Your task to perform on an android device: change notifications settings Image 0: 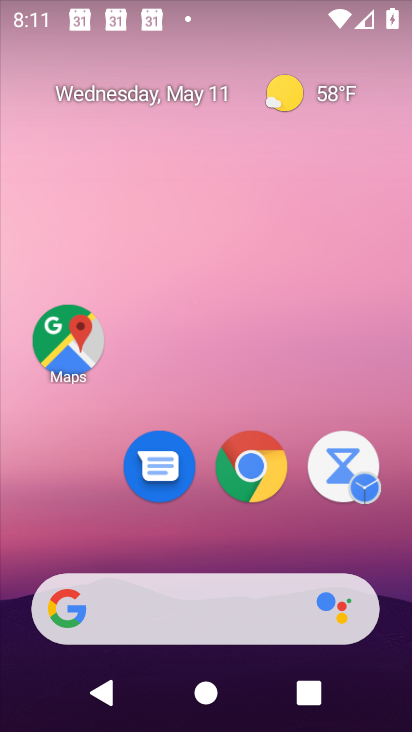
Step 0: drag from (202, 408) to (181, 21)
Your task to perform on an android device: change notifications settings Image 1: 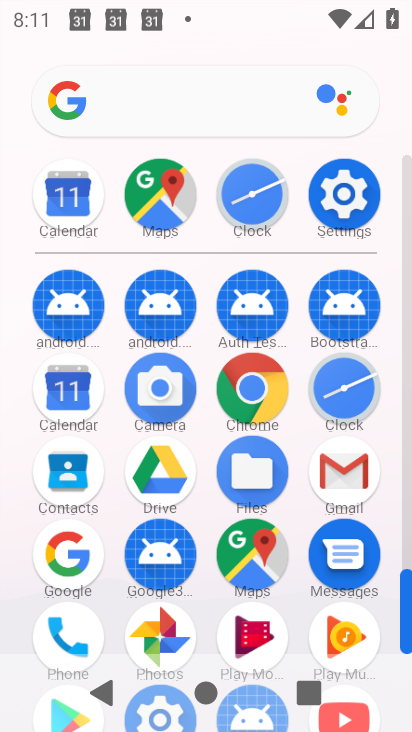
Step 1: click (336, 187)
Your task to perform on an android device: change notifications settings Image 2: 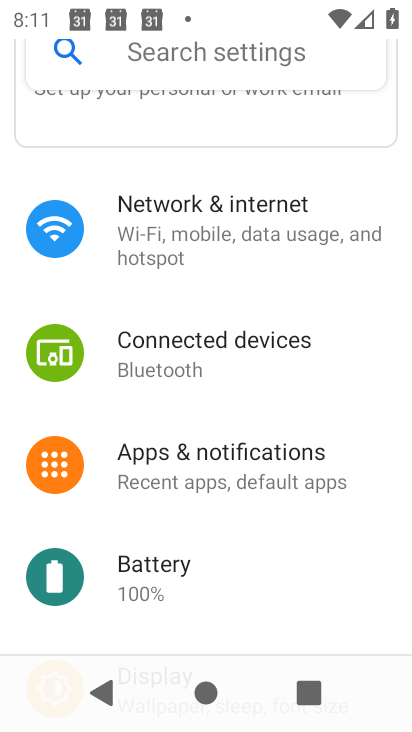
Step 2: click (145, 490)
Your task to perform on an android device: change notifications settings Image 3: 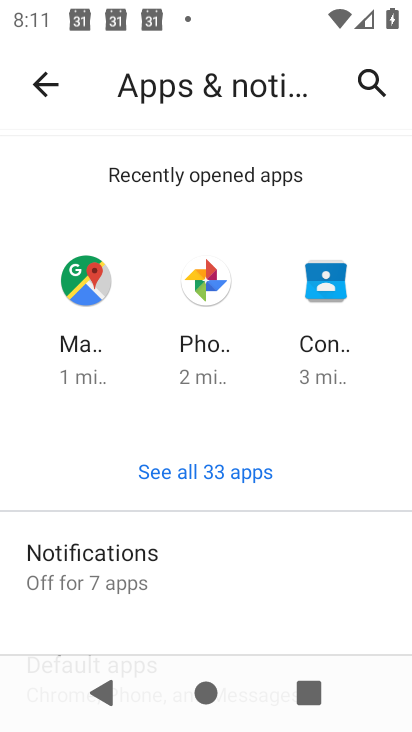
Step 3: click (189, 552)
Your task to perform on an android device: change notifications settings Image 4: 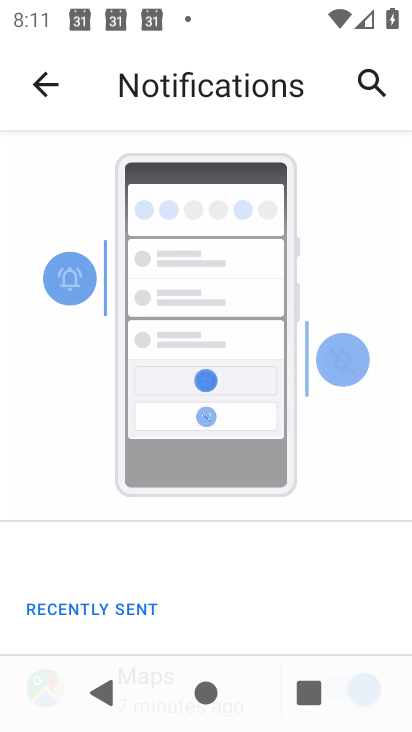
Step 4: drag from (187, 548) to (200, 235)
Your task to perform on an android device: change notifications settings Image 5: 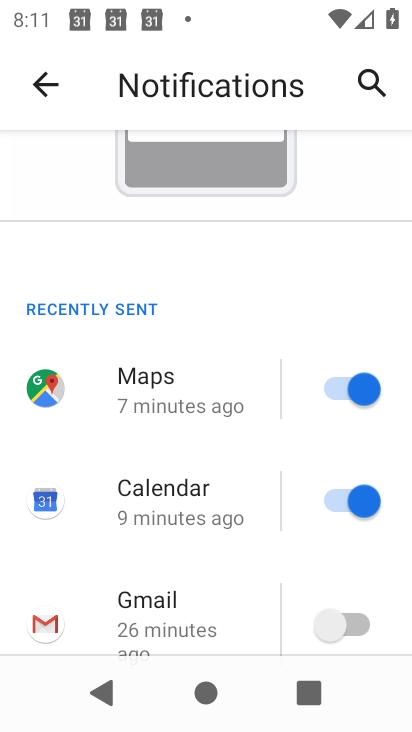
Step 5: drag from (175, 495) to (178, 223)
Your task to perform on an android device: change notifications settings Image 6: 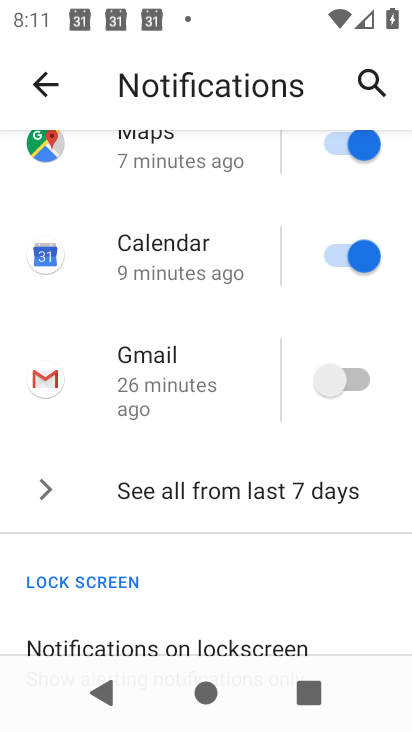
Step 6: click (178, 490)
Your task to perform on an android device: change notifications settings Image 7: 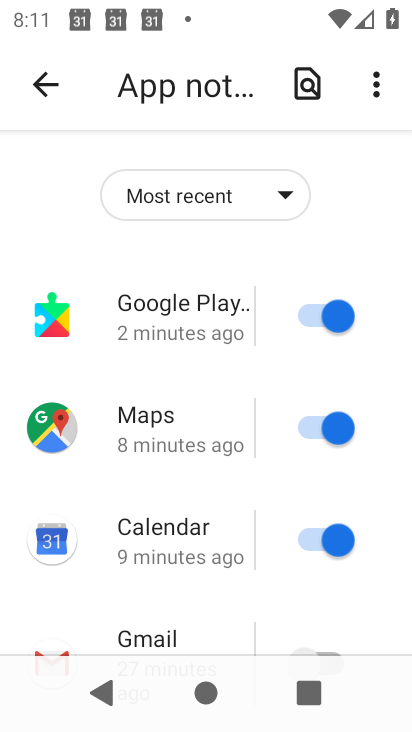
Step 7: drag from (166, 584) to (149, 254)
Your task to perform on an android device: change notifications settings Image 8: 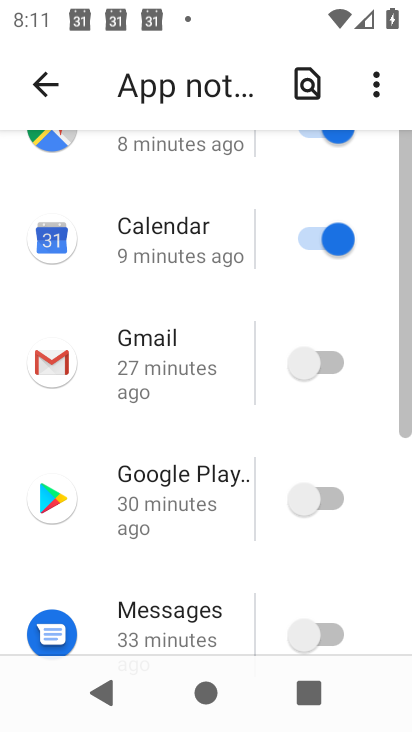
Step 8: drag from (200, 549) to (264, 218)
Your task to perform on an android device: change notifications settings Image 9: 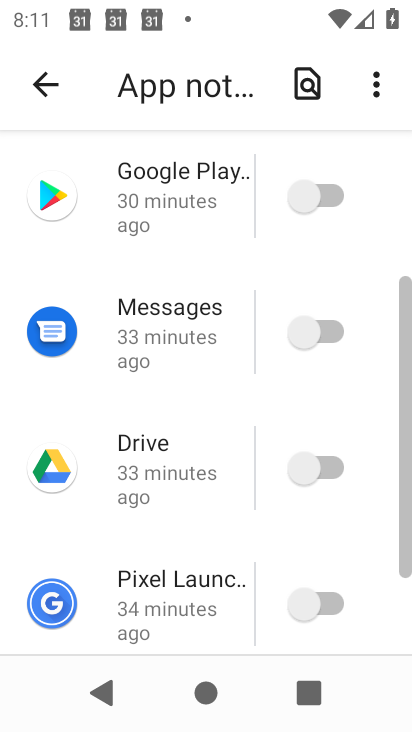
Step 9: click (289, 605)
Your task to perform on an android device: change notifications settings Image 10: 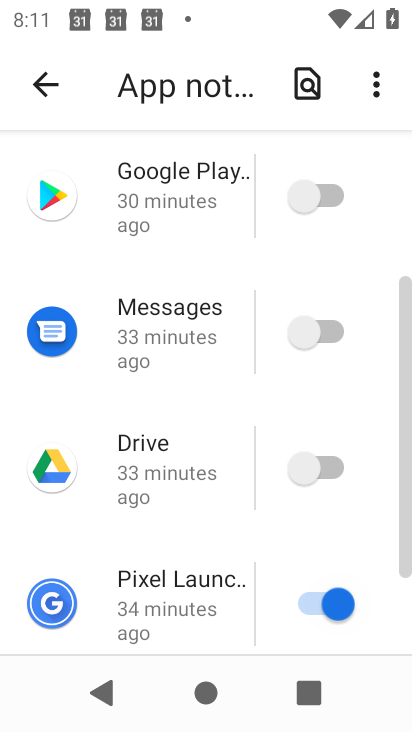
Step 10: click (323, 462)
Your task to perform on an android device: change notifications settings Image 11: 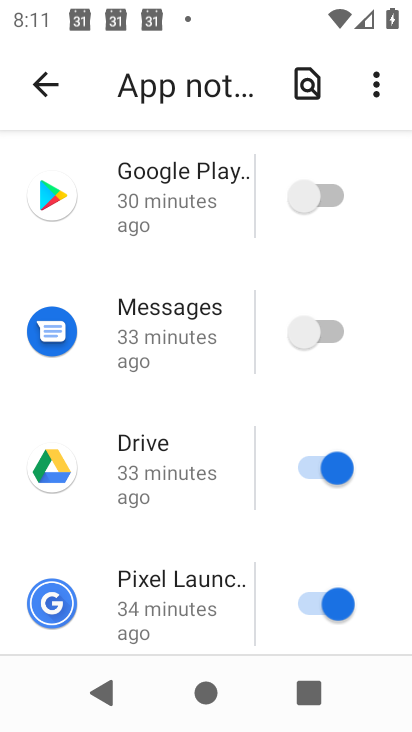
Step 11: click (309, 348)
Your task to perform on an android device: change notifications settings Image 12: 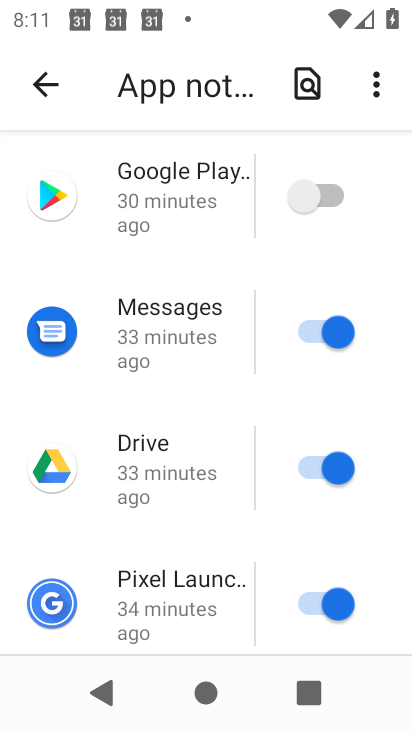
Step 12: click (324, 204)
Your task to perform on an android device: change notifications settings Image 13: 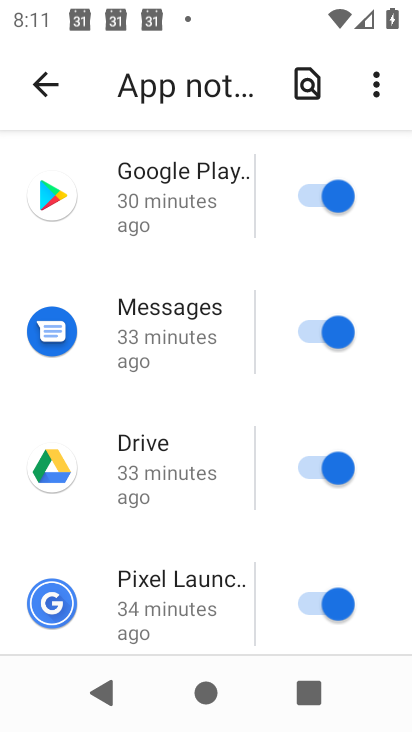
Step 13: drag from (188, 189) to (227, 609)
Your task to perform on an android device: change notifications settings Image 14: 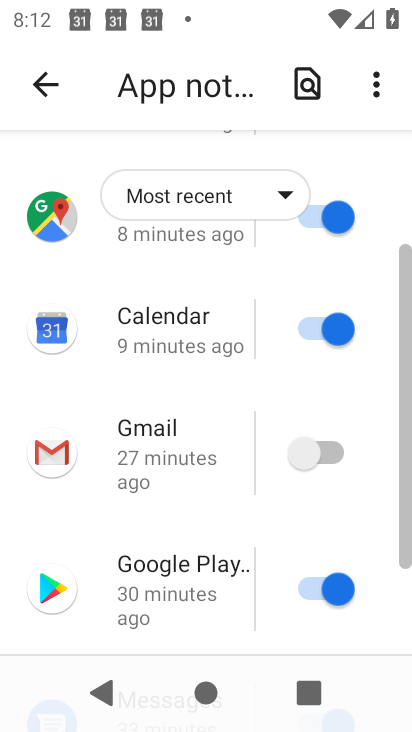
Step 14: click (324, 454)
Your task to perform on an android device: change notifications settings Image 15: 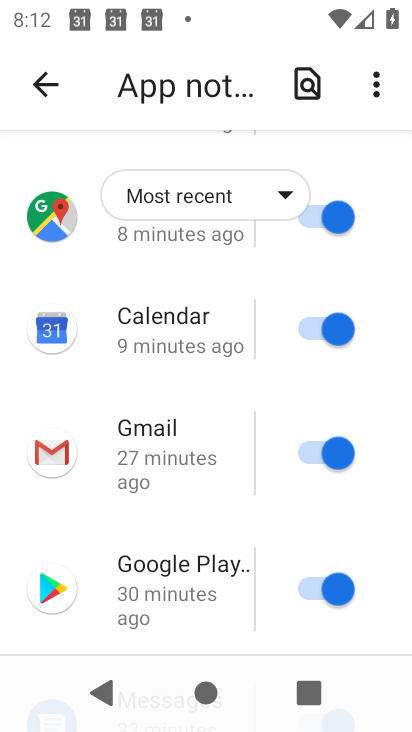
Step 15: click (346, 317)
Your task to perform on an android device: change notifications settings Image 16: 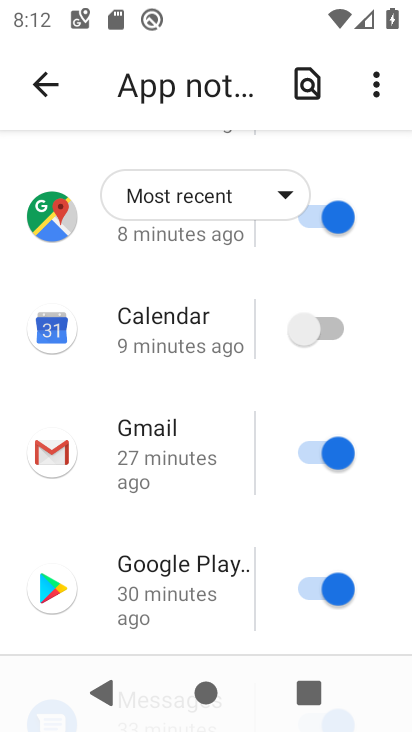
Step 16: click (328, 227)
Your task to perform on an android device: change notifications settings Image 17: 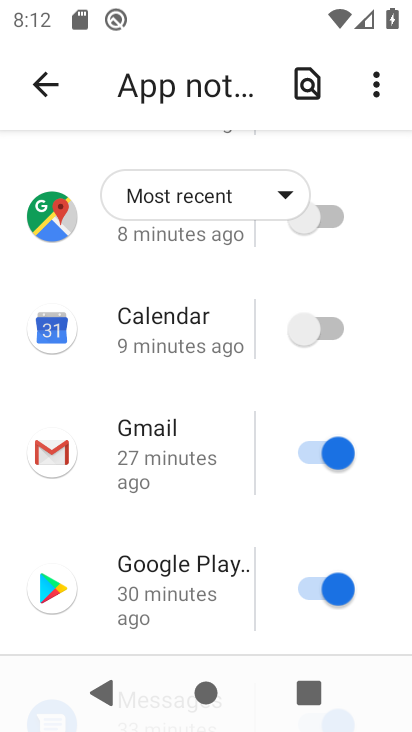
Step 17: drag from (274, 268) to (281, 583)
Your task to perform on an android device: change notifications settings Image 18: 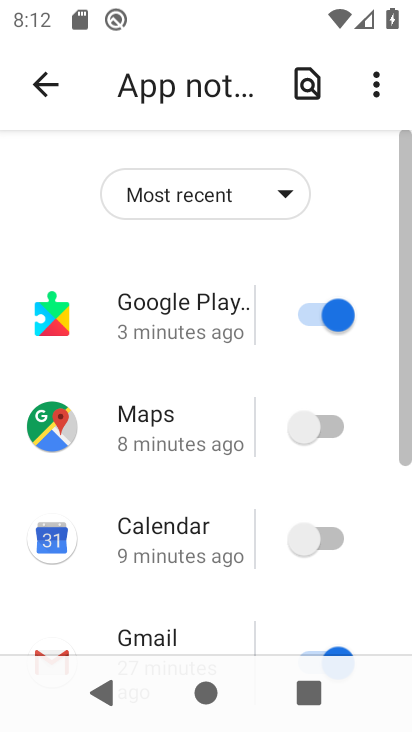
Step 18: click (306, 306)
Your task to perform on an android device: change notifications settings Image 19: 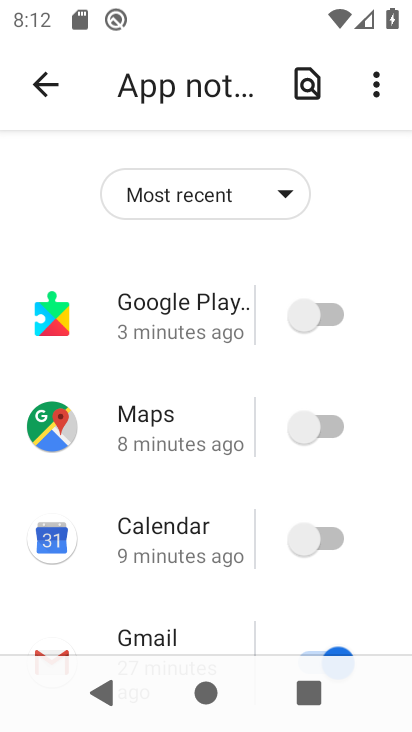
Step 19: click (32, 84)
Your task to perform on an android device: change notifications settings Image 20: 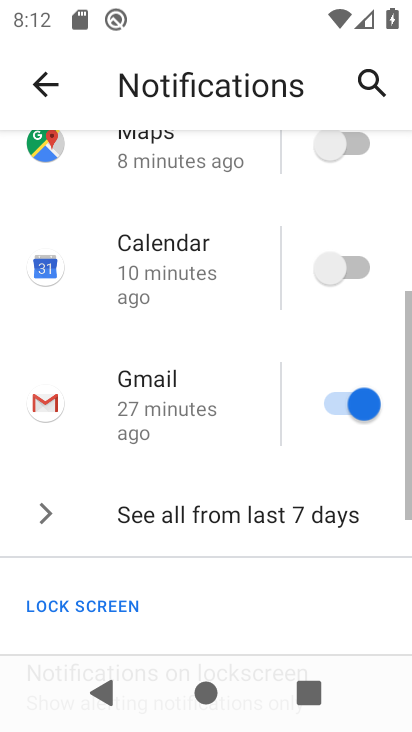
Step 20: drag from (185, 585) to (240, 101)
Your task to perform on an android device: change notifications settings Image 21: 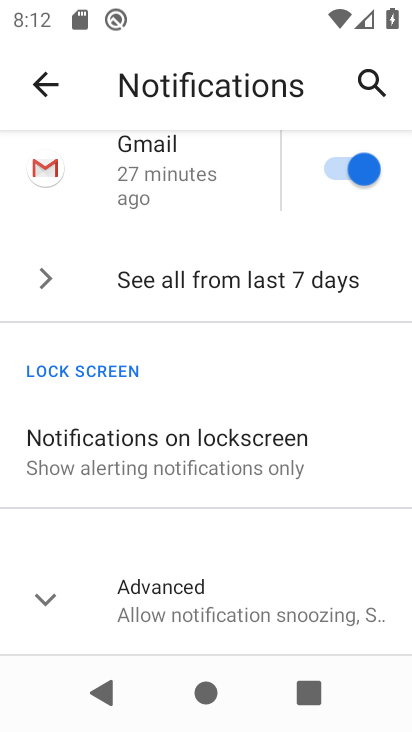
Step 21: click (163, 440)
Your task to perform on an android device: change notifications settings Image 22: 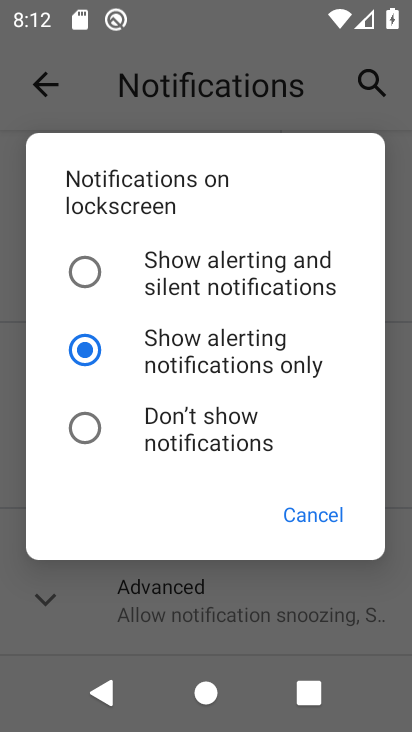
Step 22: click (193, 284)
Your task to perform on an android device: change notifications settings Image 23: 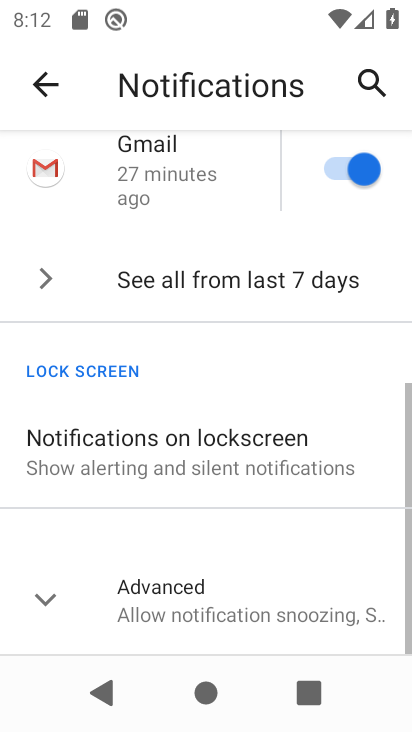
Step 23: click (193, 619)
Your task to perform on an android device: change notifications settings Image 24: 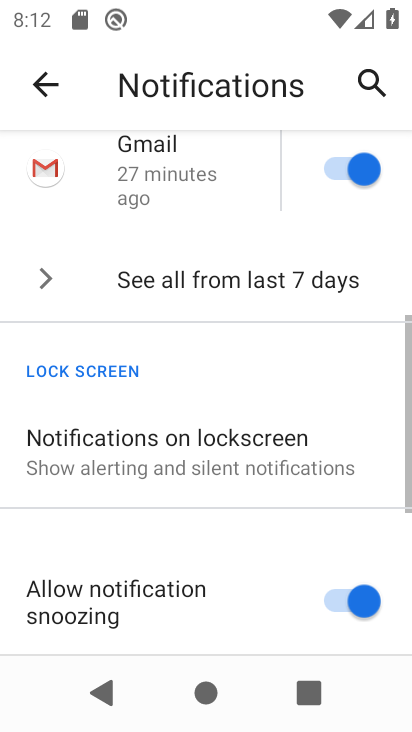
Step 24: drag from (192, 617) to (250, 229)
Your task to perform on an android device: change notifications settings Image 25: 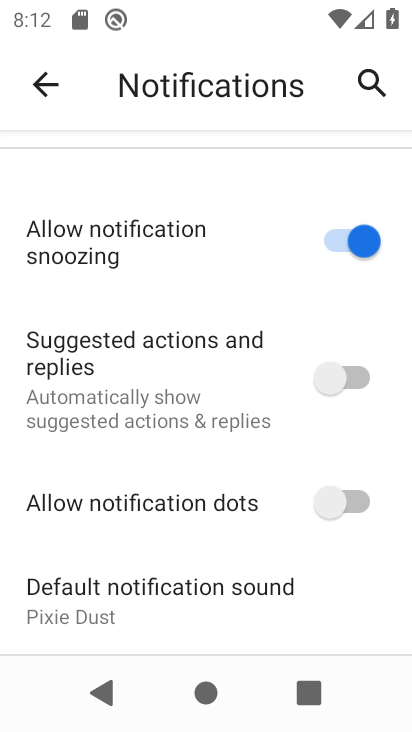
Step 25: click (344, 253)
Your task to perform on an android device: change notifications settings Image 26: 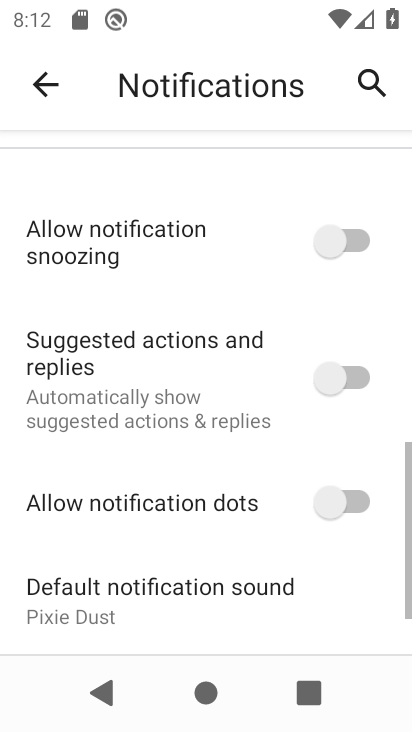
Step 26: click (340, 386)
Your task to perform on an android device: change notifications settings Image 27: 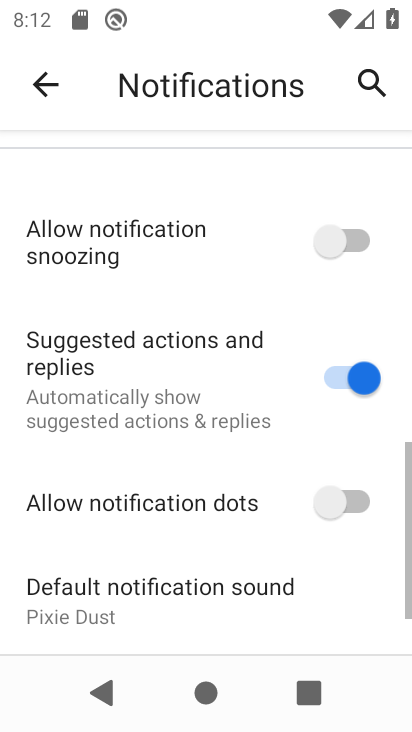
Step 27: click (352, 506)
Your task to perform on an android device: change notifications settings Image 28: 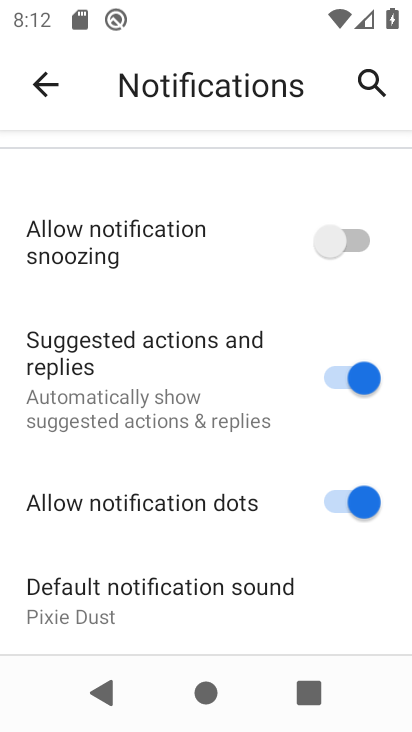
Step 28: task complete